Your task to perform on an android device: find which apps use the phone's location Image 0: 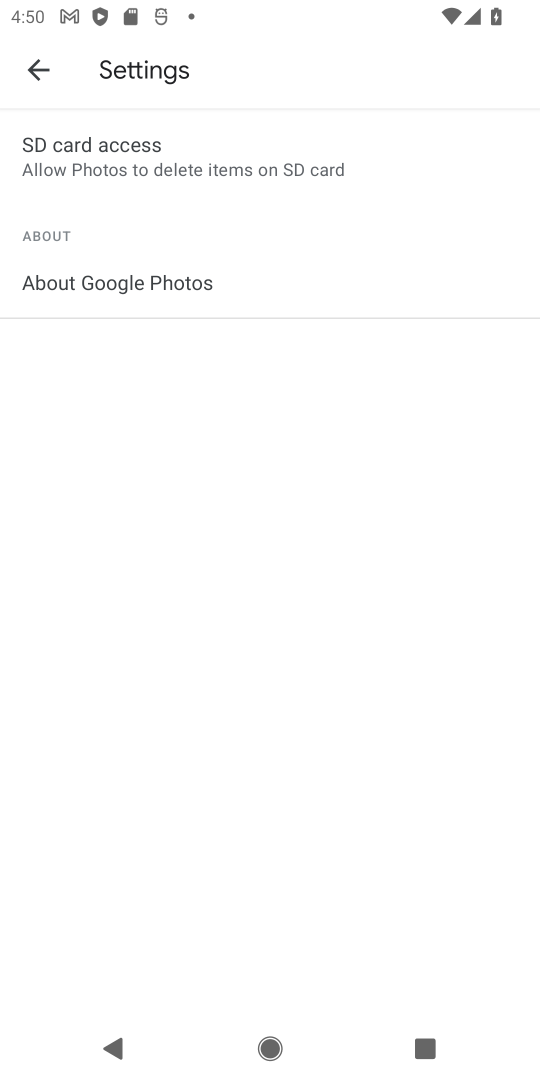
Step 0: press back button
Your task to perform on an android device: find which apps use the phone's location Image 1: 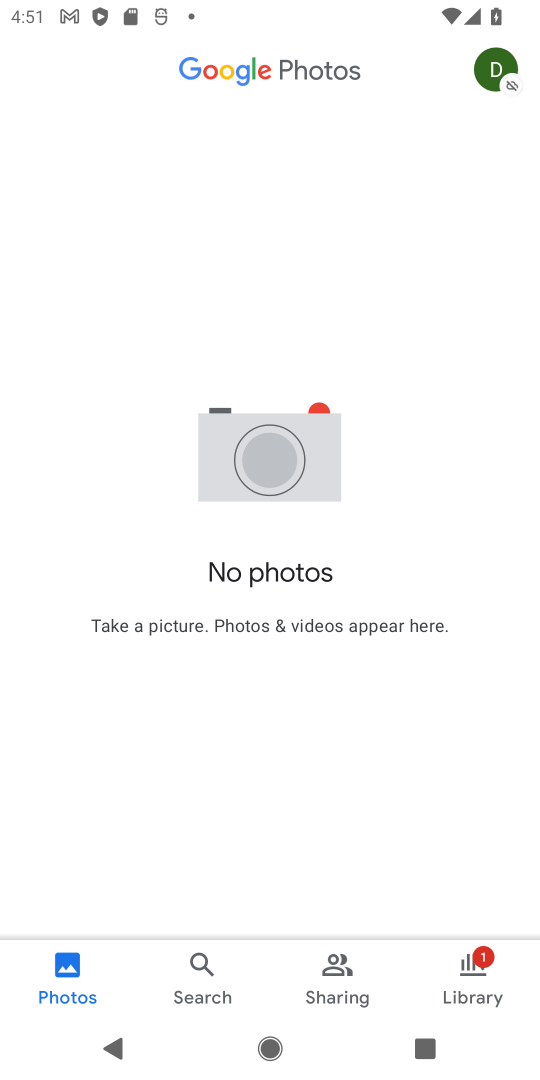
Step 1: press home button
Your task to perform on an android device: find which apps use the phone's location Image 2: 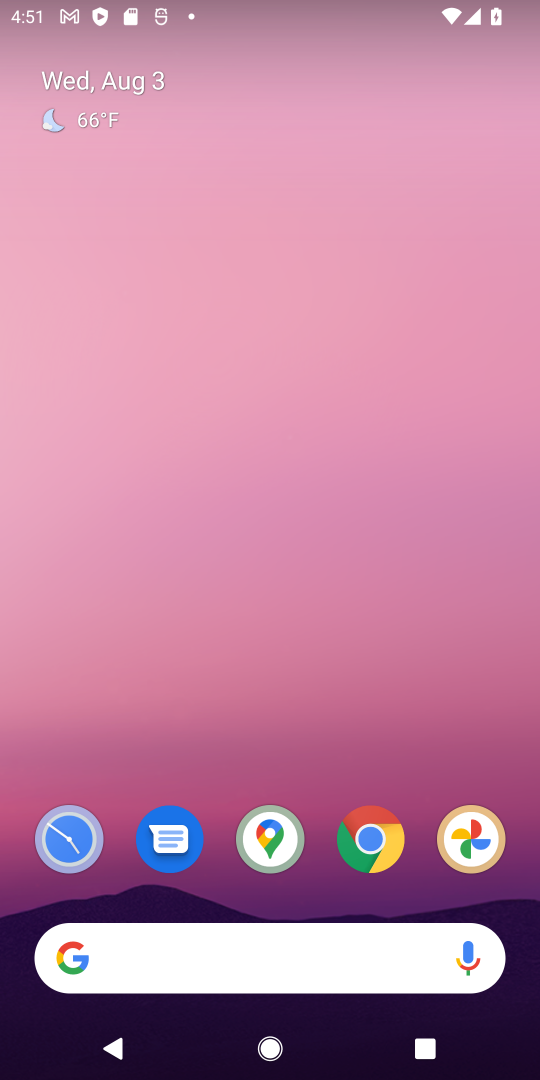
Step 2: drag from (246, 554) to (311, 9)
Your task to perform on an android device: find which apps use the phone's location Image 3: 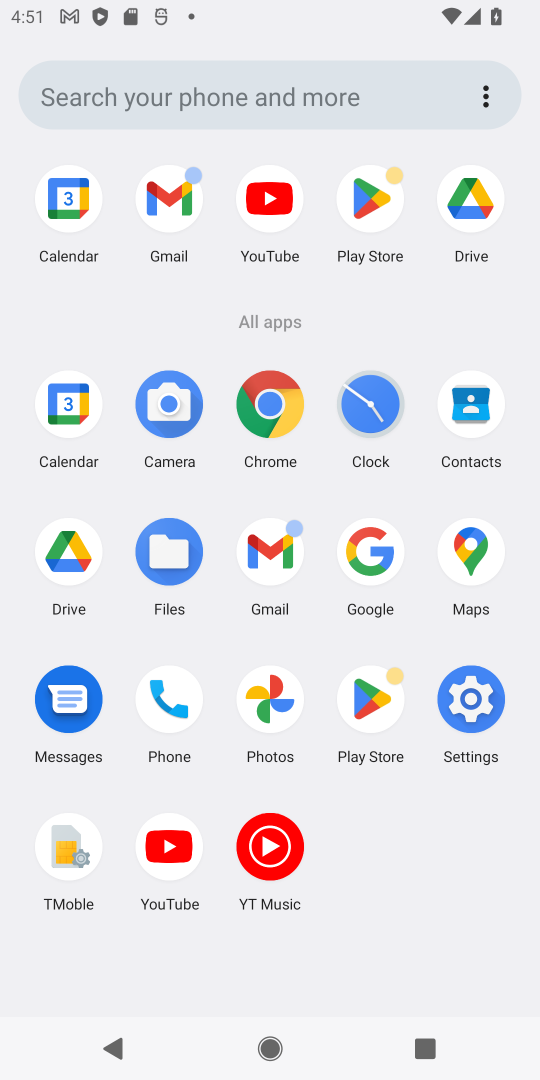
Step 3: click (466, 726)
Your task to perform on an android device: find which apps use the phone's location Image 4: 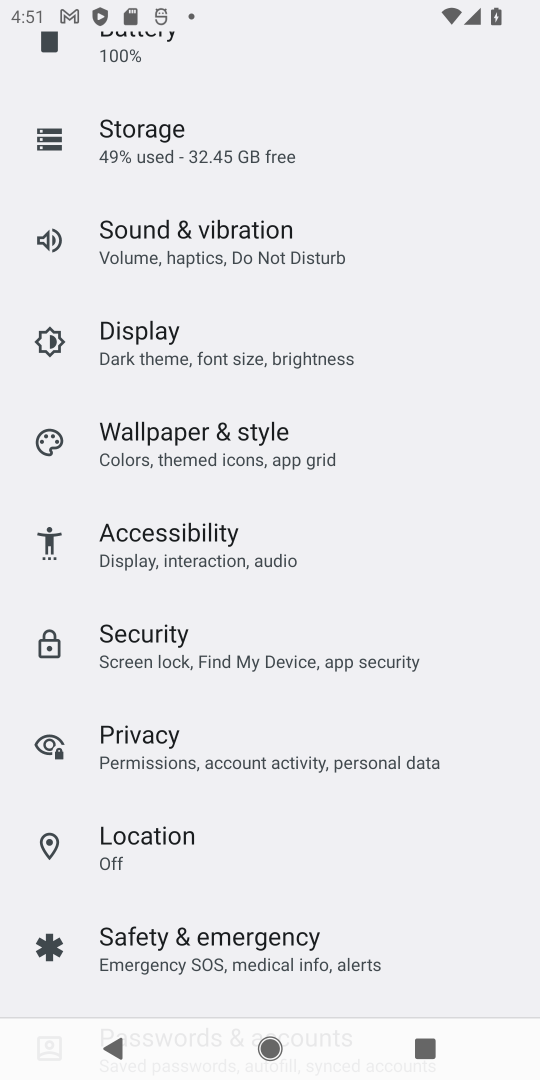
Step 4: click (194, 857)
Your task to perform on an android device: find which apps use the phone's location Image 5: 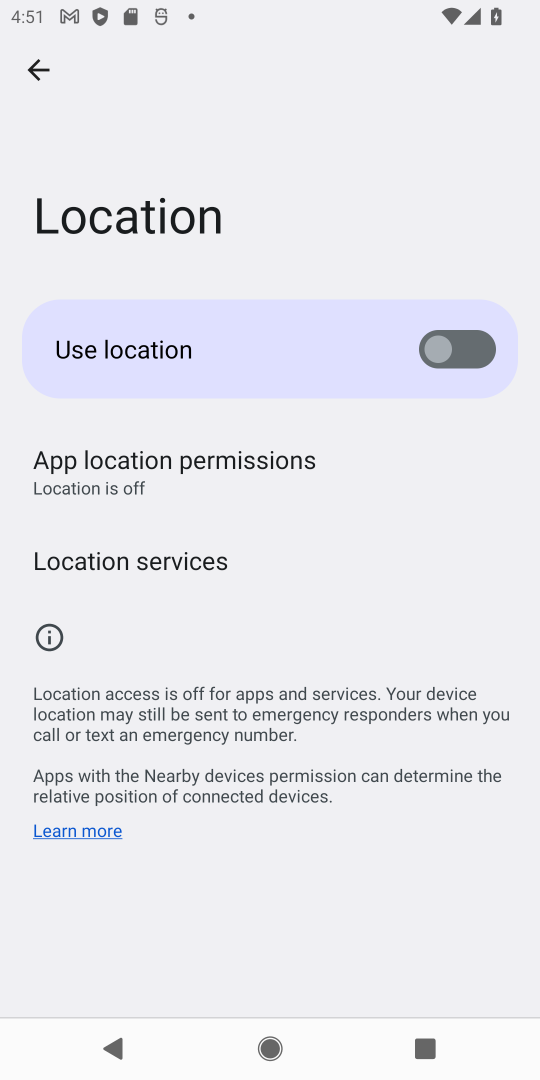
Step 5: click (188, 473)
Your task to perform on an android device: find which apps use the phone's location Image 6: 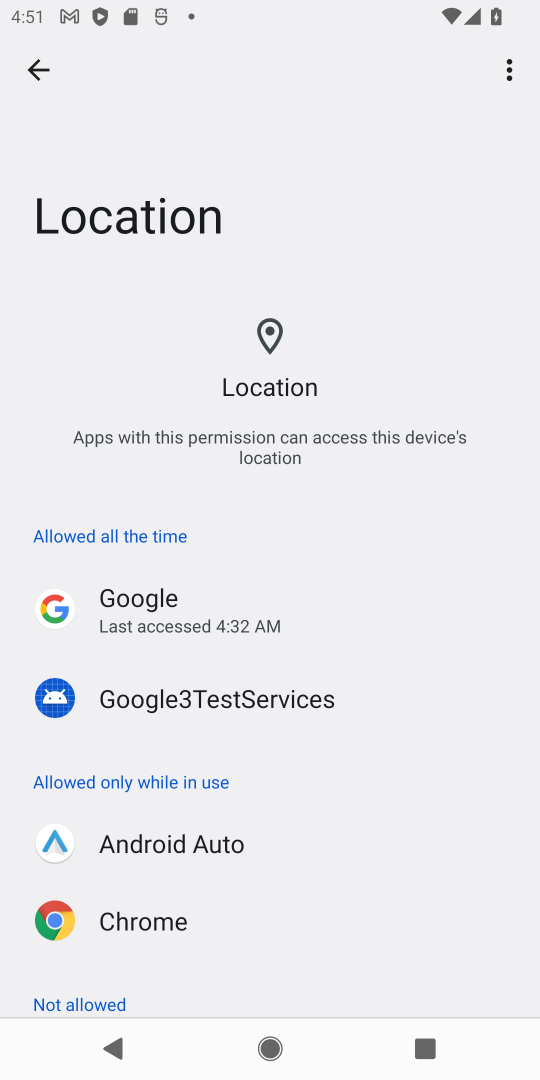
Step 6: task complete